Your task to perform on an android device: Open Android settings Image 0: 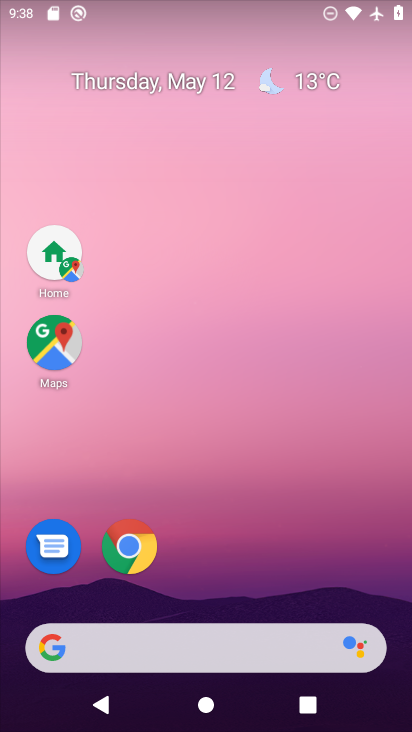
Step 0: drag from (189, 651) to (306, 151)
Your task to perform on an android device: Open Android settings Image 1: 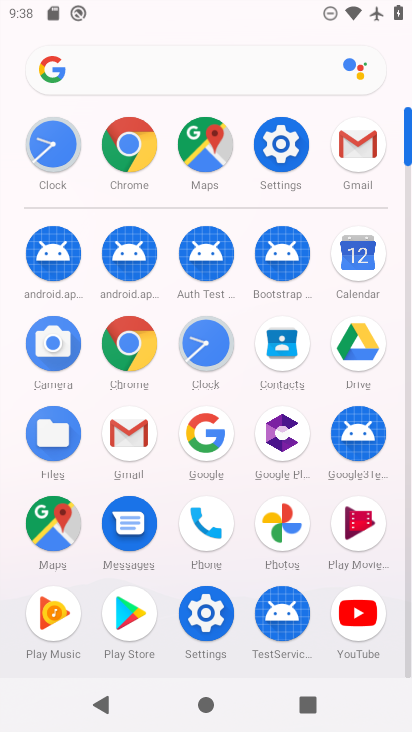
Step 1: click (271, 155)
Your task to perform on an android device: Open Android settings Image 2: 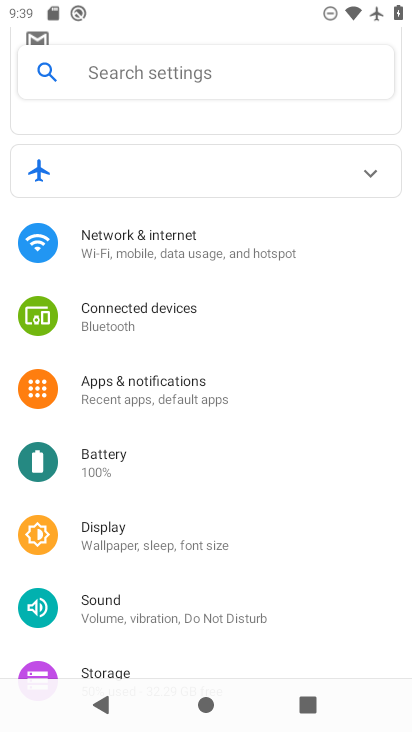
Step 2: task complete